Your task to perform on an android device: Open calendar and show me the first week of next month Image 0: 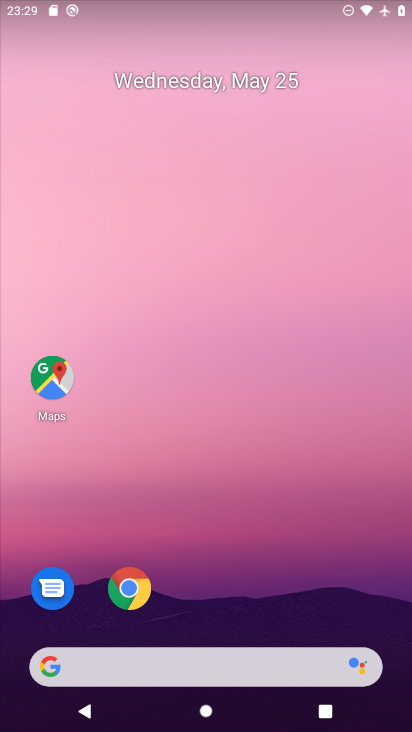
Step 0: drag from (295, 596) to (271, 79)
Your task to perform on an android device: Open calendar and show me the first week of next month Image 1: 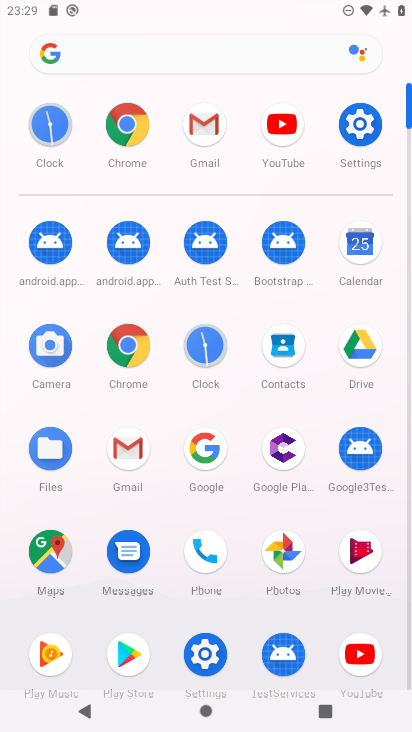
Step 1: click (367, 246)
Your task to perform on an android device: Open calendar and show me the first week of next month Image 2: 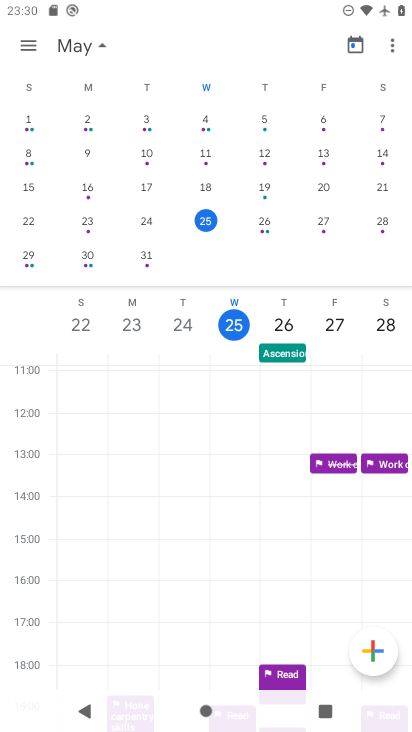
Step 2: drag from (358, 205) to (63, 202)
Your task to perform on an android device: Open calendar and show me the first week of next month Image 3: 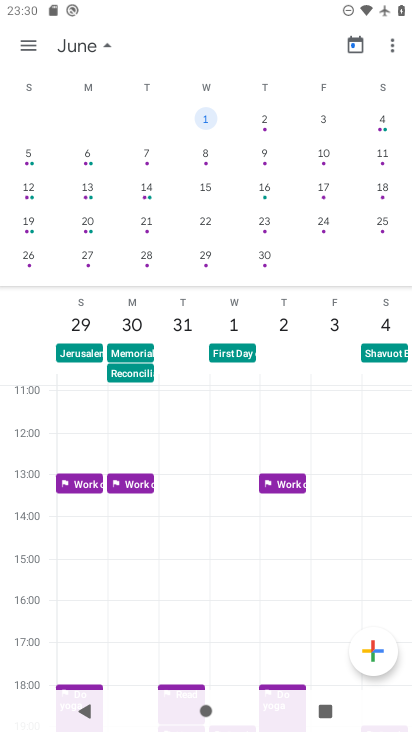
Step 3: click (38, 155)
Your task to perform on an android device: Open calendar and show me the first week of next month Image 4: 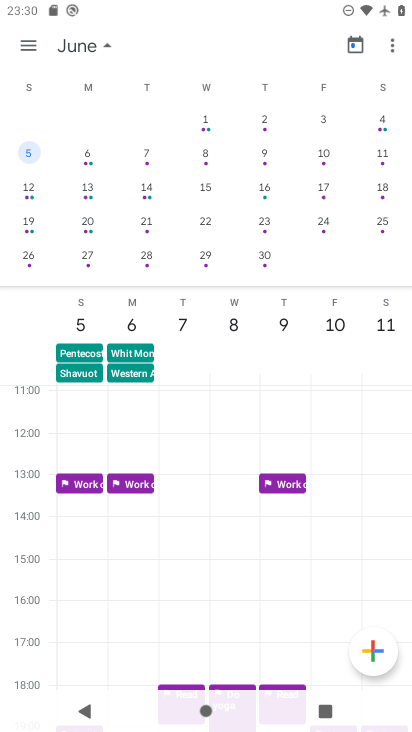
Step 4: click (24, 39)
Your task to perform on an android device: Open calendar and show me the first week of next month Image 5: 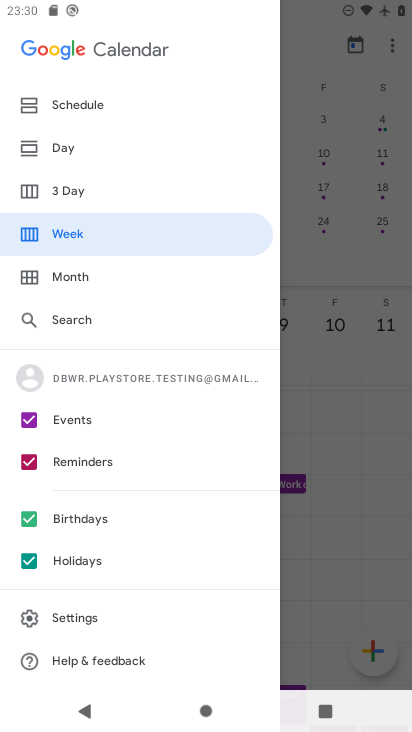
Step 5: click (90, 224)
Your task to perform on an android device: Open calendar and show me the first week of next month Image 6: 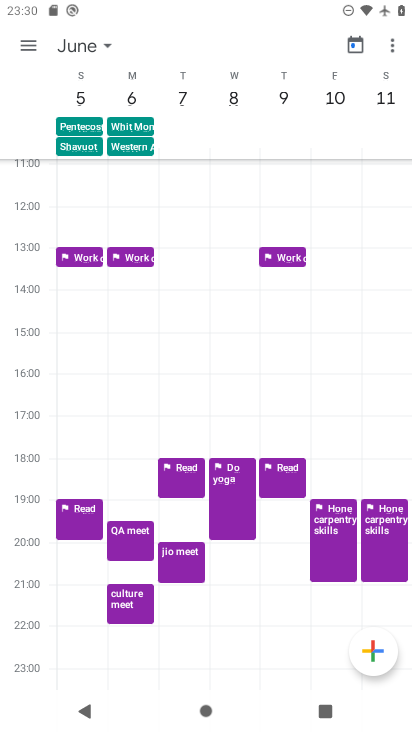
Step 6: task complete